Your task to perform on an android device: Go to Amazon Image 0: 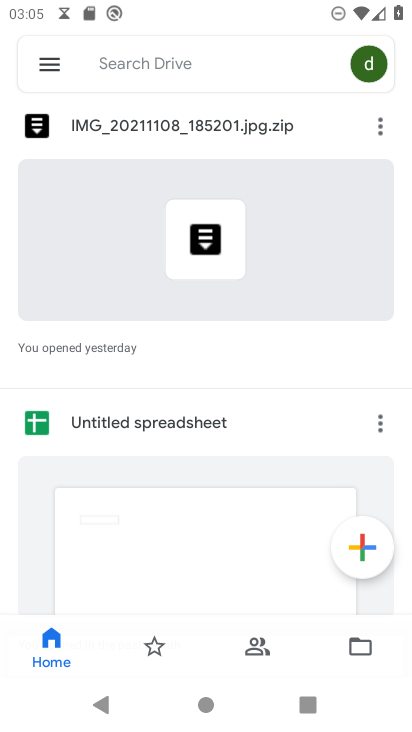
Step 0: press home button
Your task to perform on an android device: Go to Amazon Image 1: 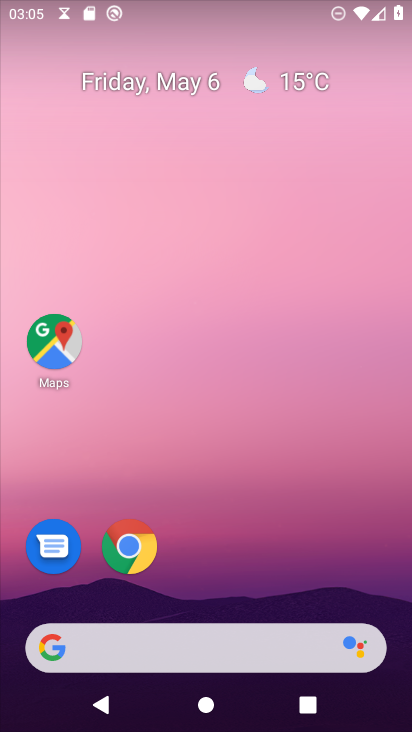
Step 1: click (137, 561)
Your task to perform on an android device: Go to Amazon Image 2: 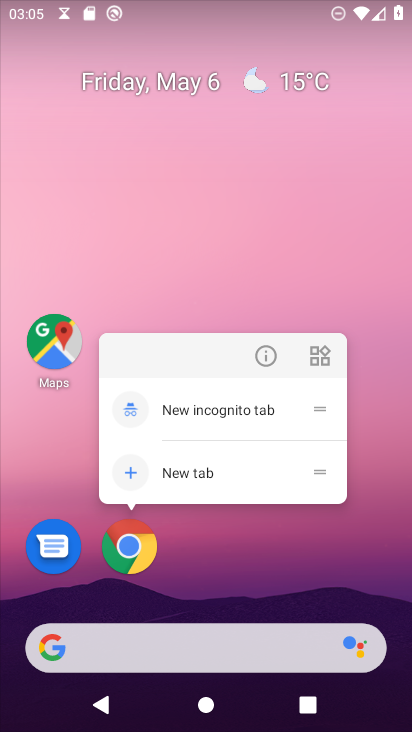
Step 2: click (130, 537)
Your task to perform on an android device: Go to Amazon Image 3: 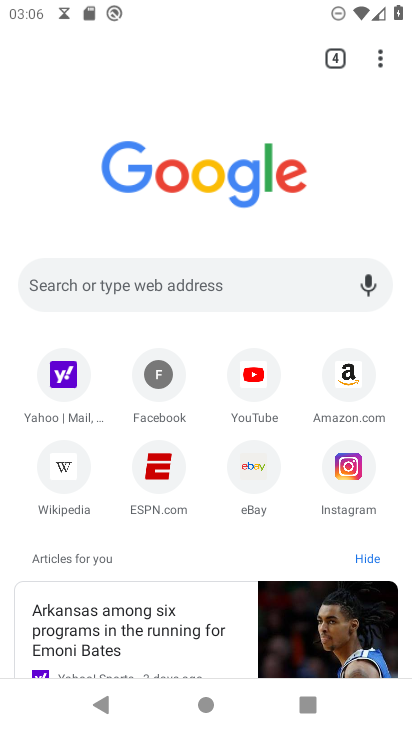
Step 3: click (351, 371)
Your task to perform on an android device: Go to Amazon Image 4: 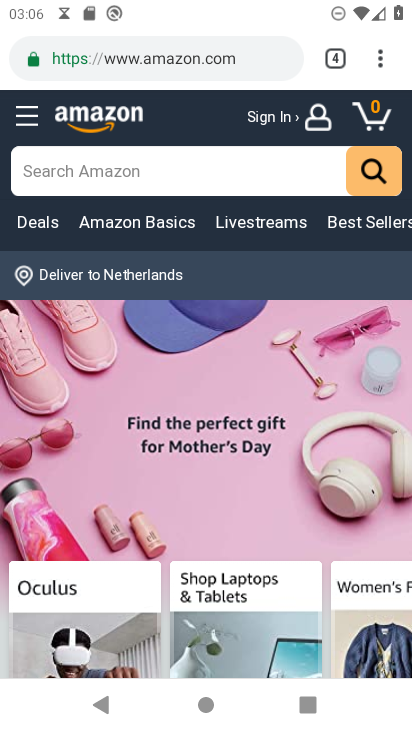
Step 4: task complete